Your task to perform on an android device: refresh tabs in the chrome app Image 0: 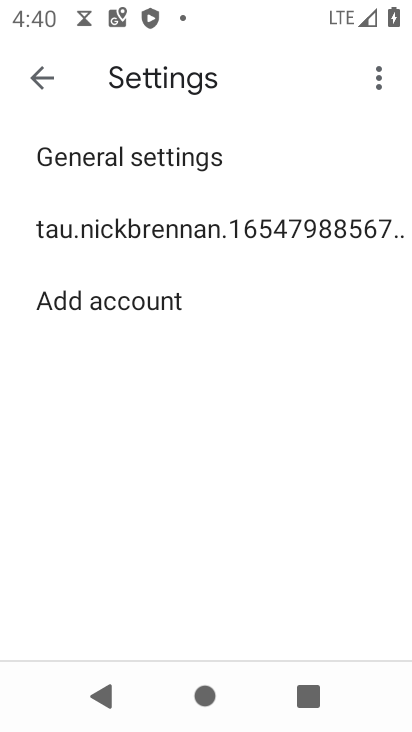
Step 0: press back button
Your task to perform on an android device: refresh tabs in the chrome app Image 1: 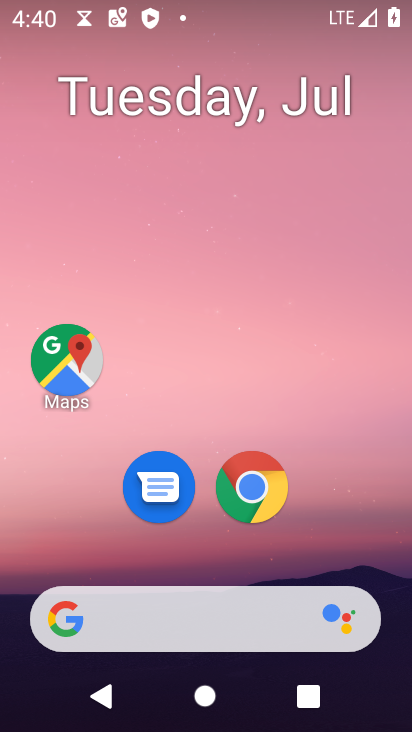
Step 1: click (218, 489)
Your task to perform on an android device: refresh tabs in the chrome app Image 2: 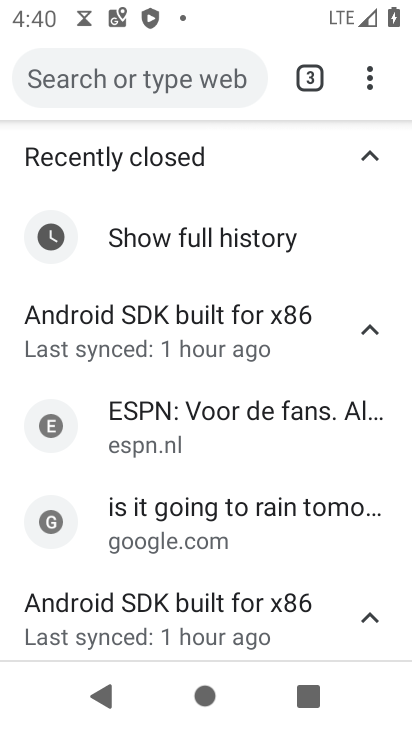
Step 2: click (370, 83)
Your task to perform on an android device: refresh tabs in the chrome app Image 3: 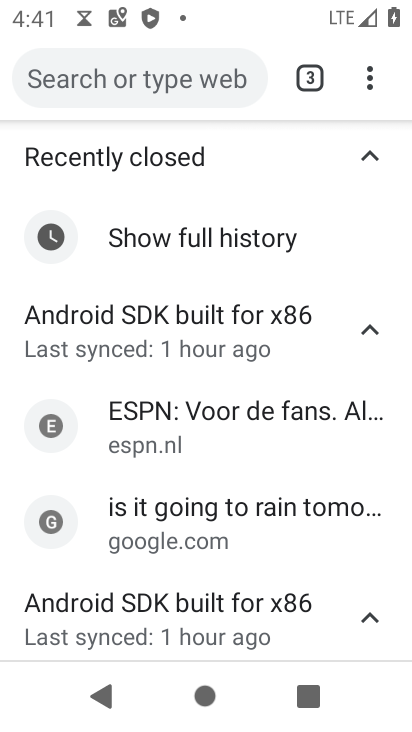
Step 3: task complete